Your task to perform on an android device: add a contact in the contacts app Image 0: 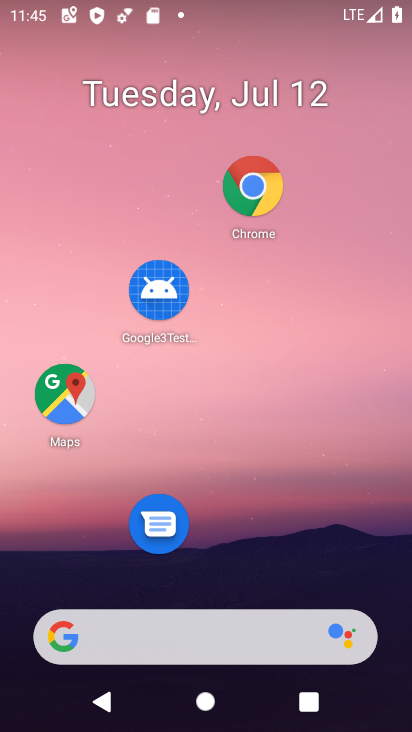
Step 0: drag from (247, 579) to (148, 62)
Your task to perform on an android device: add a contact in the contacts app Image 1: 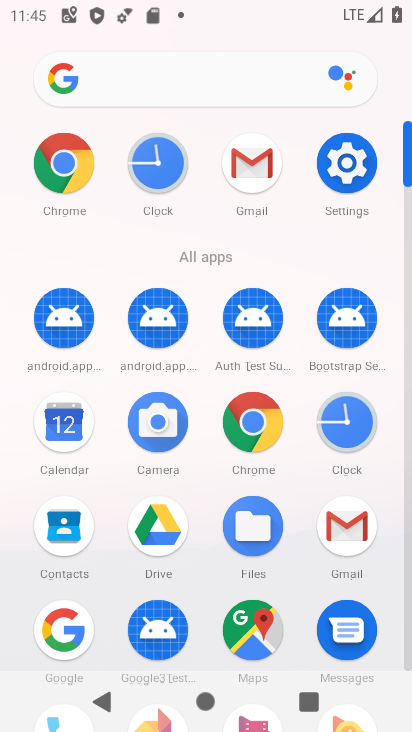
Step 1: drag from (214, 560) to (160, 155)
Your task to perform on an android device: add a contact in the contacts app Image 2: 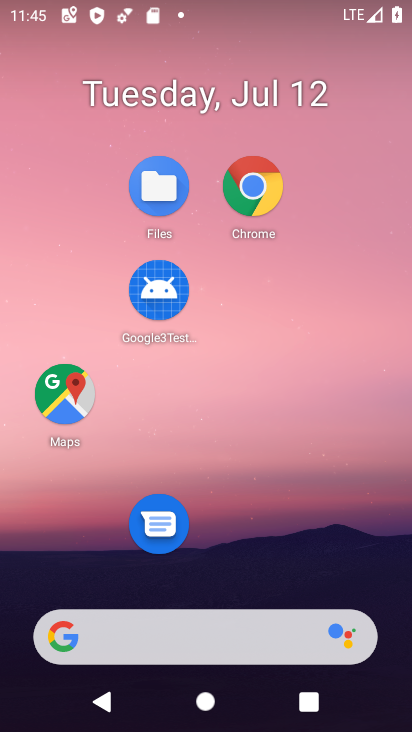
Step 2: drag from (245, 551) to (250, 74)
Your task to perform on an android device: add a contact in the contacts app Image 3: 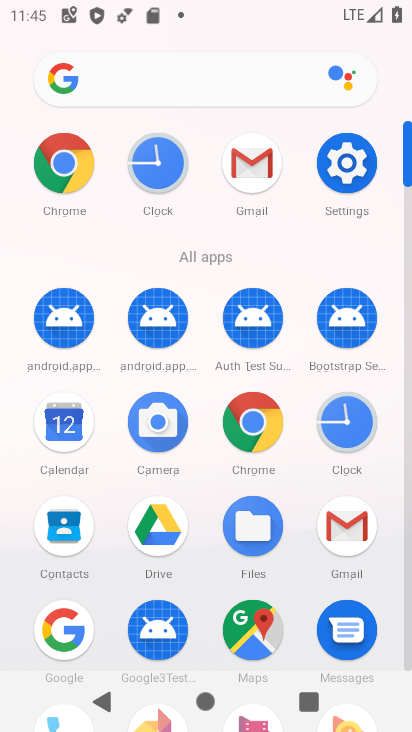
Step 3: drag from (109, 660) to (128, 222)
Your task to perform on an android device: add a contact in the contacts app Image 4: 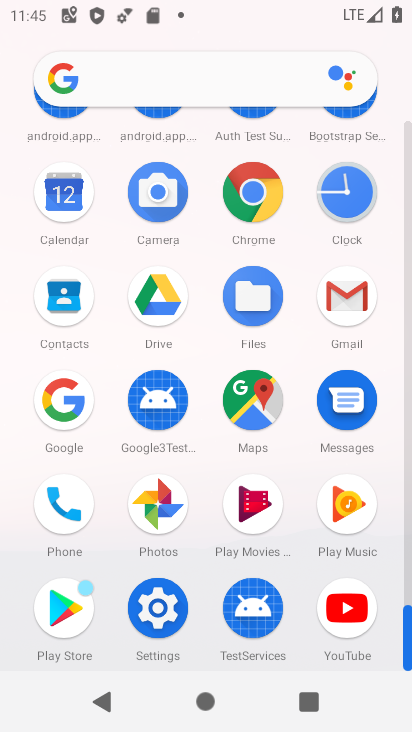
Step 4: click (65, 506)
Your task to perform on an android device: add a contact in the contacts app Image 5: 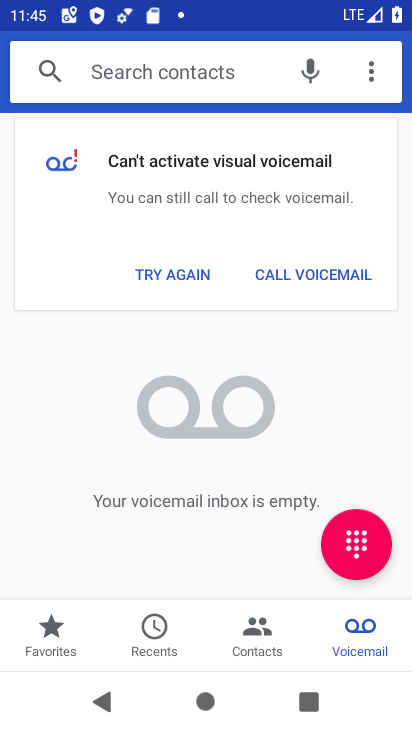
Step 5: click (252, 634)
Your task to perform on an android device: add a contact in the contacts app Image 6: 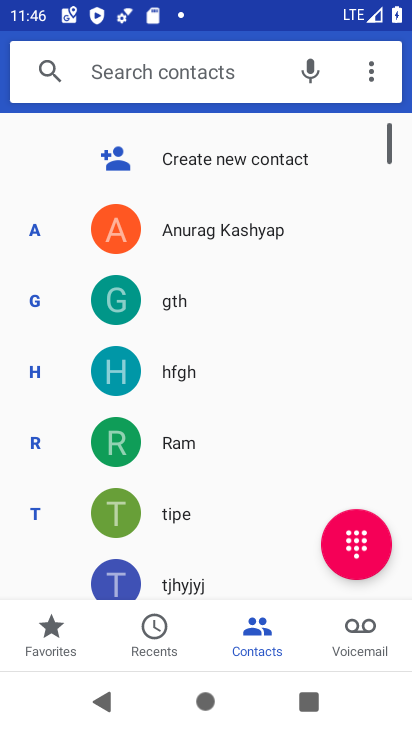
Step 6: click (197, 180)
Your task to perform on an android device: add a contact in the contacts app Image 7: 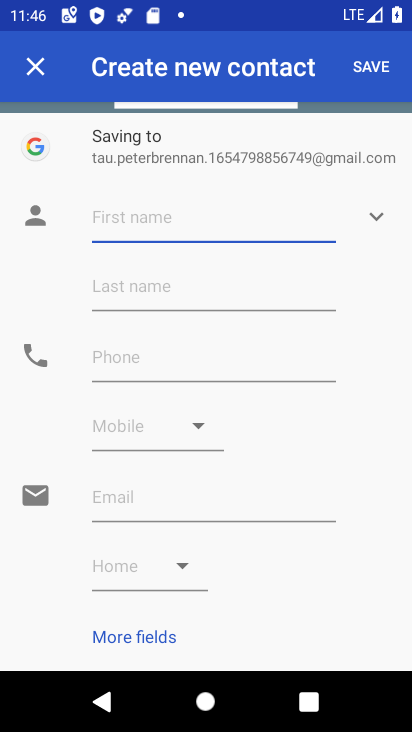
Step 7: type "ff"
Your task to perform on an android device: add a contact in the contacts app Image 8: 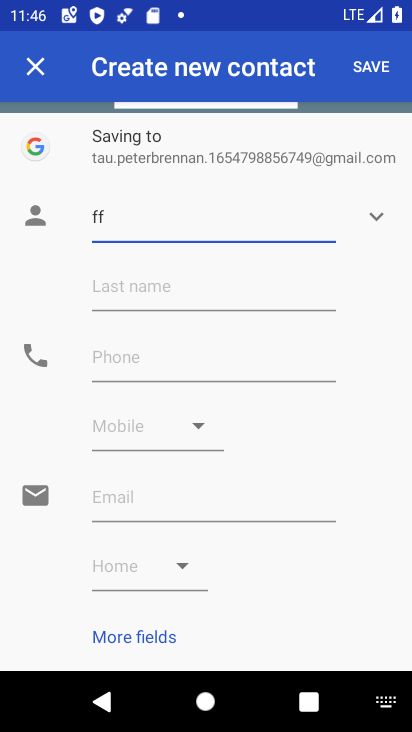
Step 8: click (162, 353)
Your task to perform on an android device: add a contact in the contacts app Image 9: 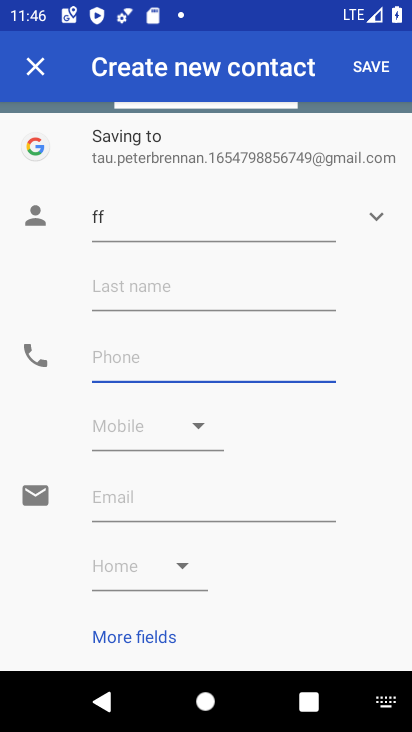
Step 9: type "44"
Your task to perform on an android device: add a contact in the contacts app Image 10: 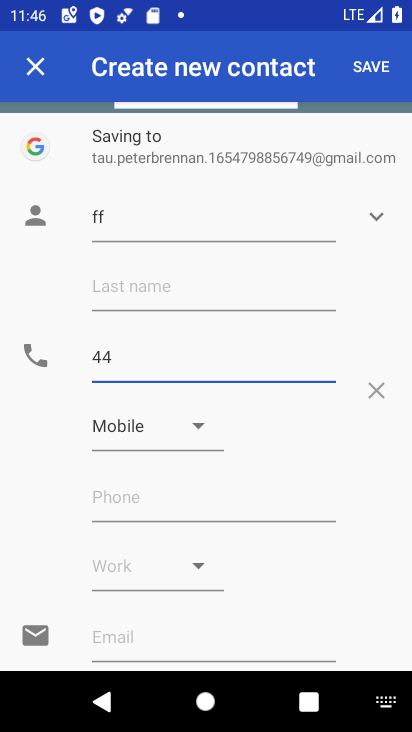
Step 10: click (391, 69)
Your task to perform on an android device: add a contact in the contacts app Image 11: 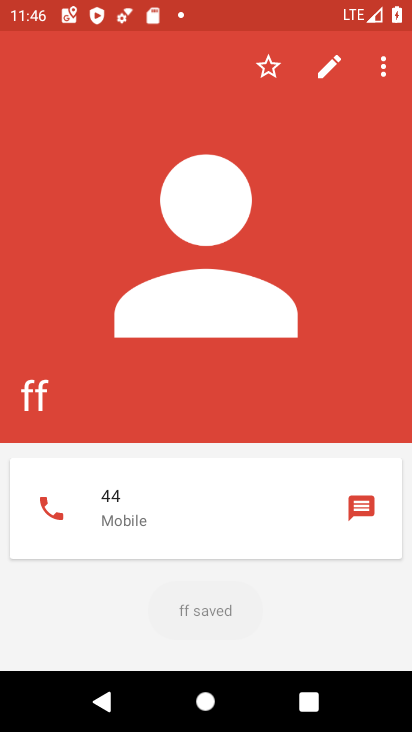
Step 11: task complete